Your task to perform on an android device: change the clock display to analog Image 0: 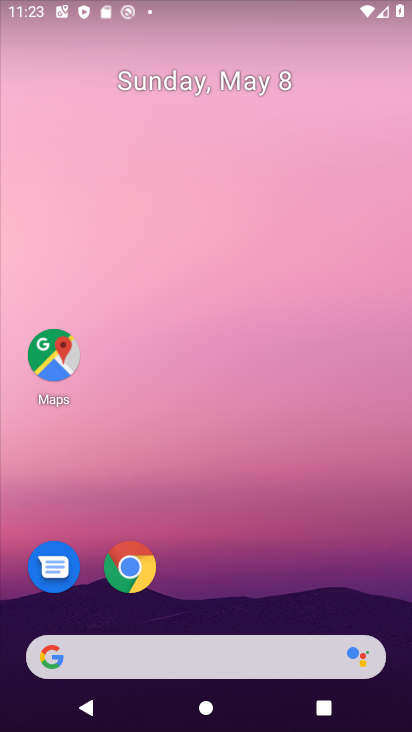
Step 0: drag from (225, 611) to (200, 100)
Your task to perform on an android device: change the clock display to analog Image 1: 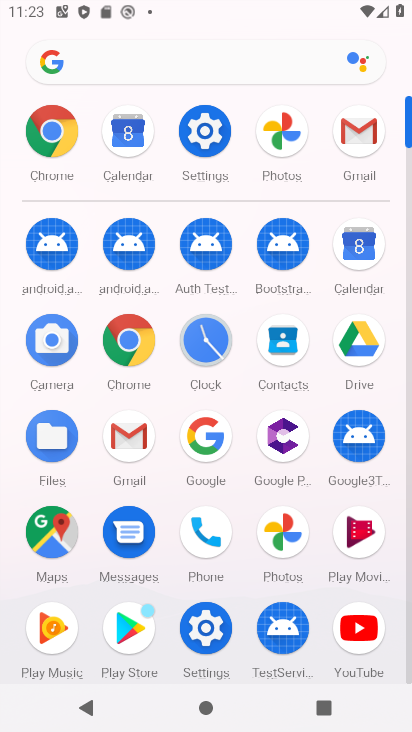
Step 1: click (206, 336)
Your task to perform on an android device: change the clock display to analog Image 2: 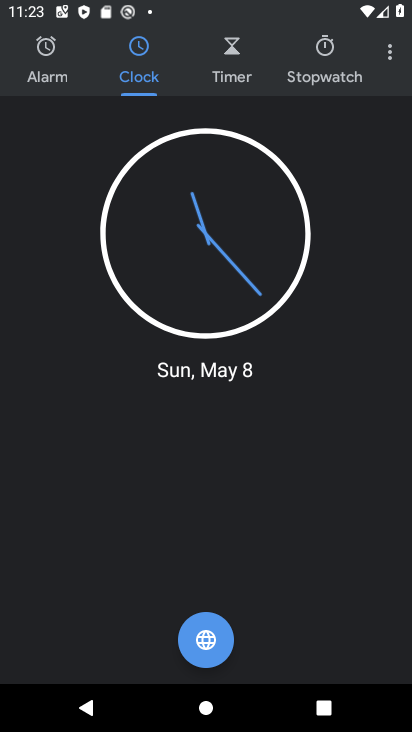
Step 2: click (393, 53)
Your task to perform on an android device: change the clock display to analog Image 3: 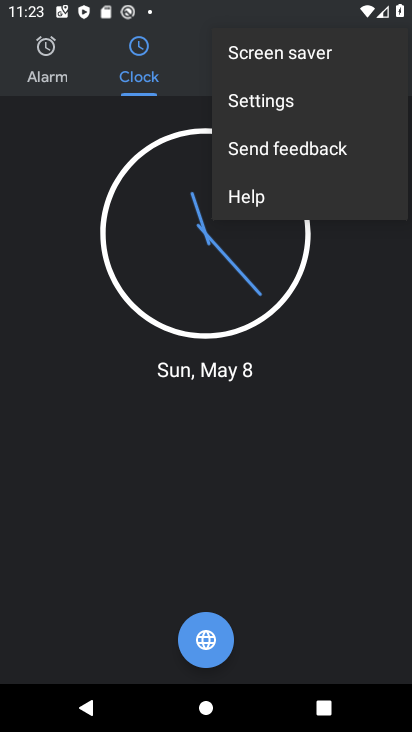
Step 3: click (305, 101)
Your task to perform on an android device: change the clock display to analog Image 4: 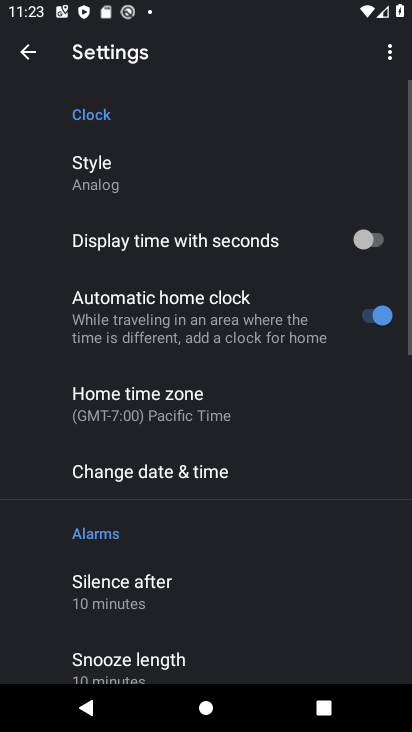
Step 4: click (140, 172)
Your task to perform on an android device: change the clock display to analog Image 5: 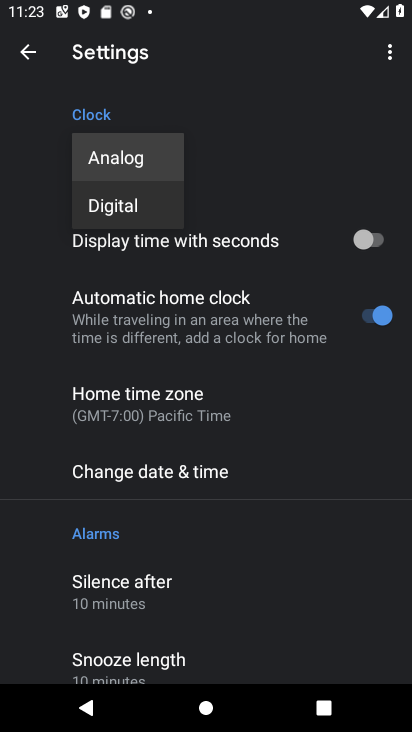
Step 5: click (132, 153)
Your task to perform on an android device: change the clock display to analog Image 6: 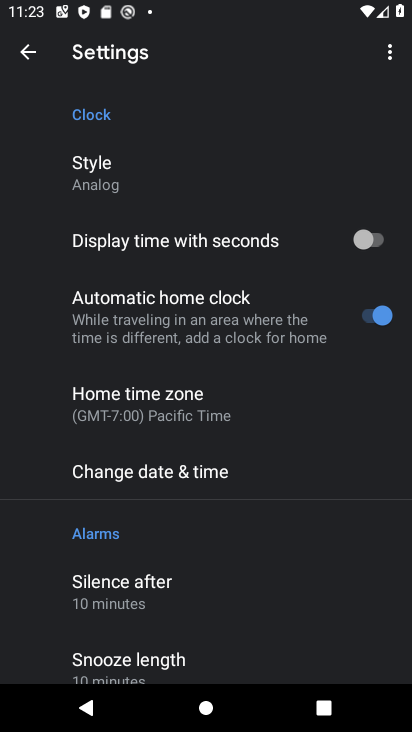
Step 6: task complete